Your task to perform on an android device: turn pop-ups on in chrome Image 0: 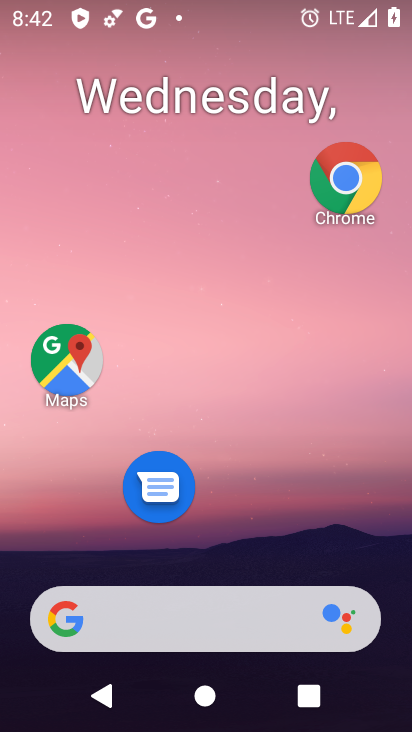
Step 0: drag from (176, 610) to (204, 98)
Your task to perform on an android device: turn pop-ups on in chrome Image 1: 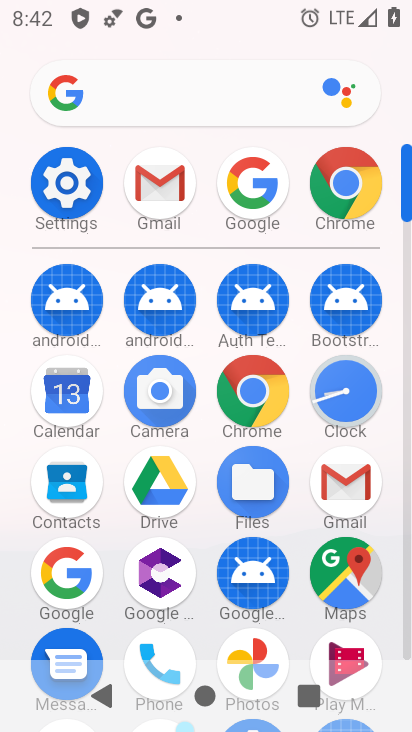
Step 1: click (325, 191)
Your task to perform on an android device: turn pop-ups on in chrome Image 2: 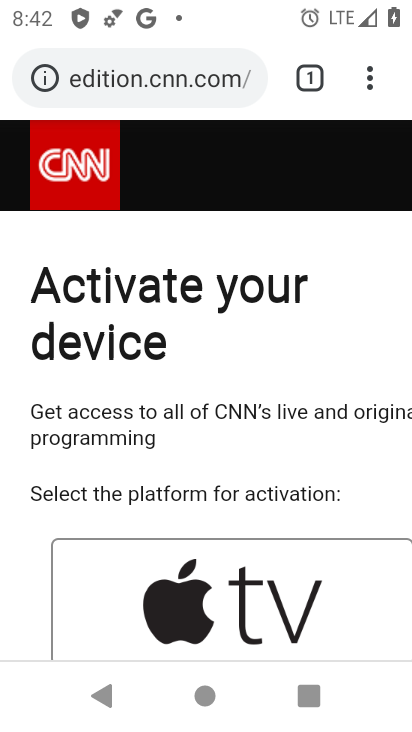
Step 2: click (369, 88)
Your task to perform on an android device: turn pop-ups on in chrome Image 3: 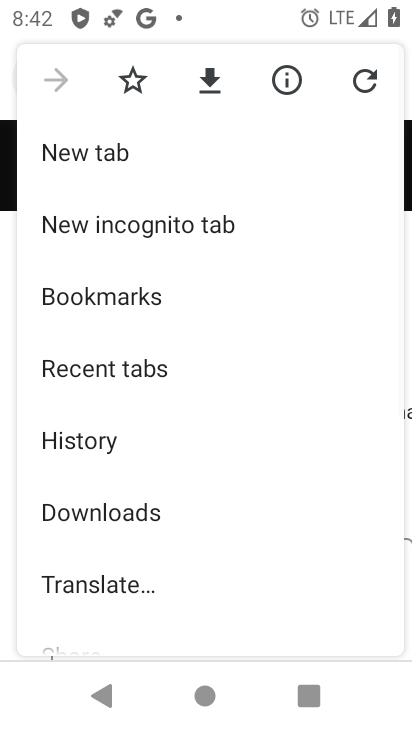
Step 3: drag from (154, 477) to (252, 125)
Your task to perform on an android device: turn pop-ups on in chrome Image 4: 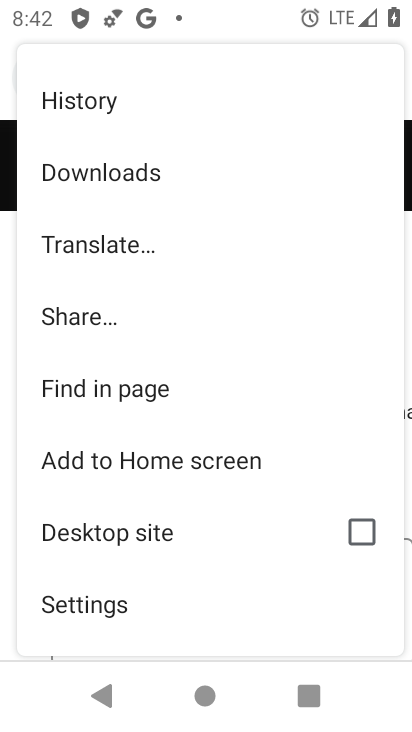
Step 4: click (98, 603)
Your task to perform on an android device: turn pop-ups on in chrome Image 5: 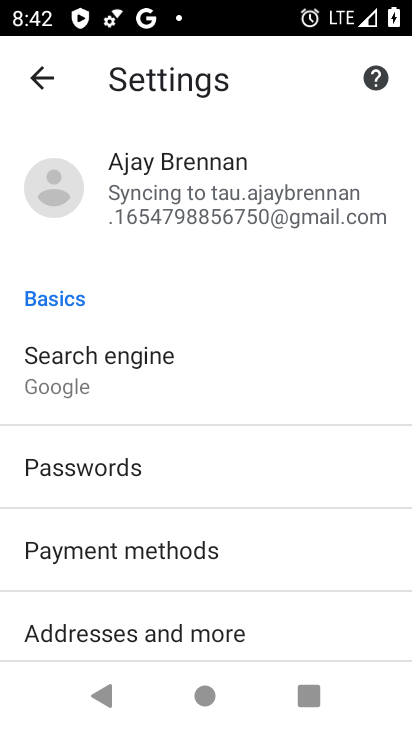
Step 5: drag from (151, 592) to (173, 448)
Your task to perform on an android device: turn pop-ups on in chrome Image 6: 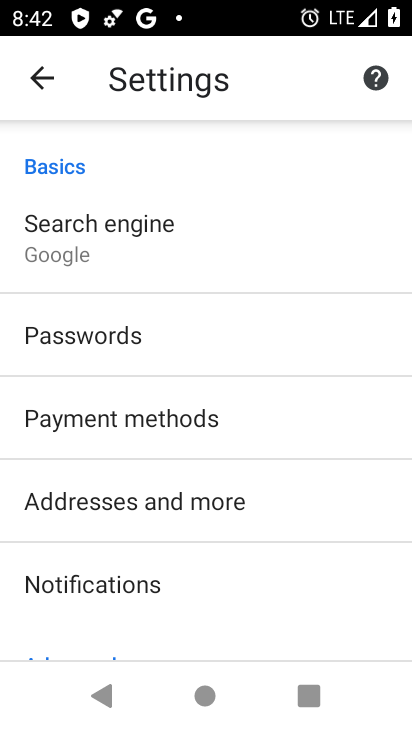
Step 6: drag from (153, 591) to (176, 457)
Your task to perform on an android device: turn pop-ups on in chrome Image 7: 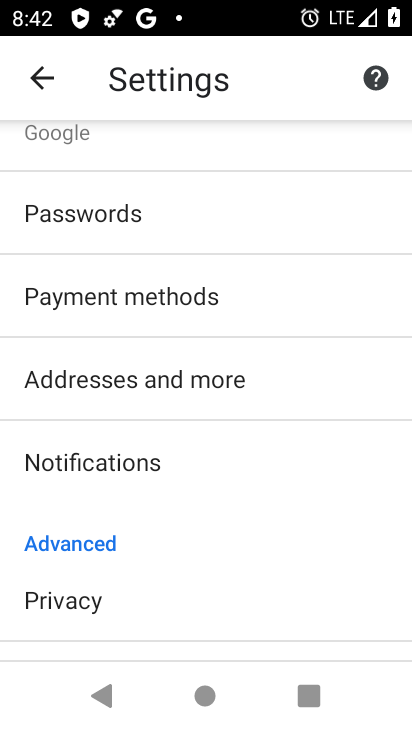
Step 7: drag from (155, 620) to (188, 374)
Your task to perform on an android device: turn pop-ups on in chrome Image 8: 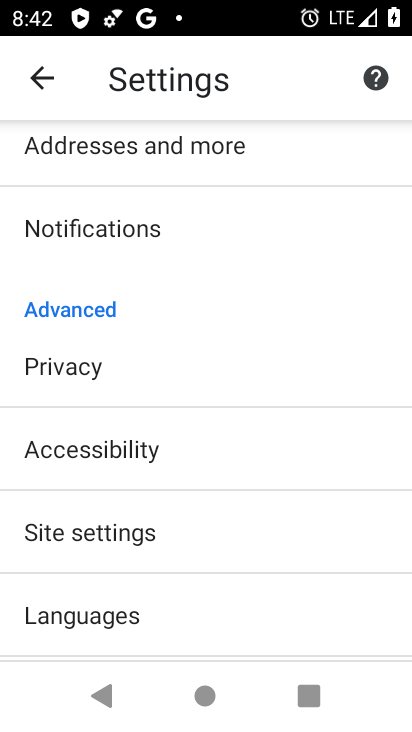
Step 8: click (98, 535)
Your task to perform on an android device: turn pop-ups on in chrome Image 9: 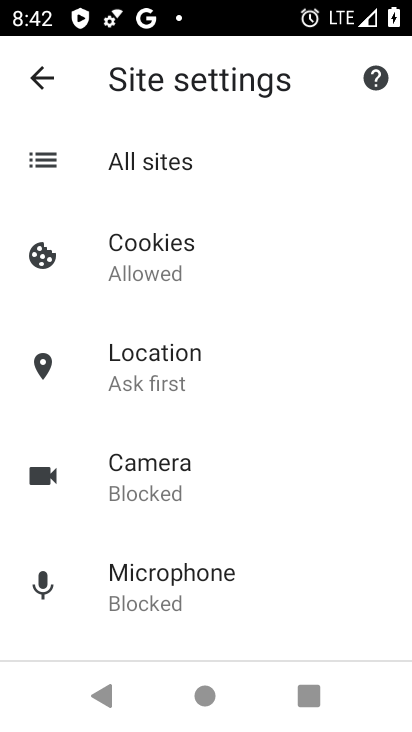
Step 9: drag from (200, 585) to (219, 458)
Your task to perform on an android device: turn pop-ups on in chrome Image 10: 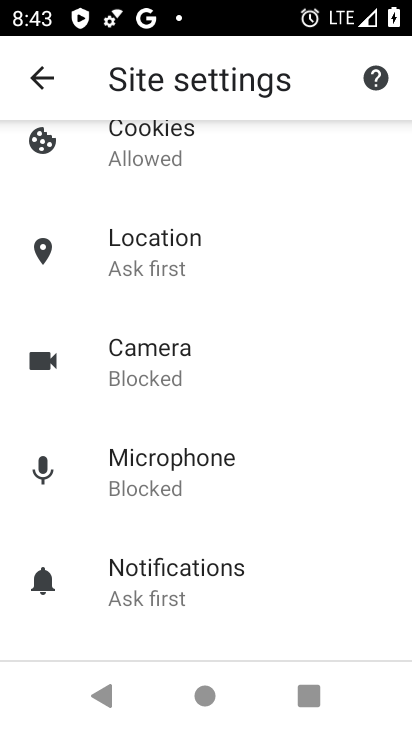
Step 10: drag from (195, 633) to (251, 381)
Your task to perform on an android device: turn pop-ups on in chrome Image 11: 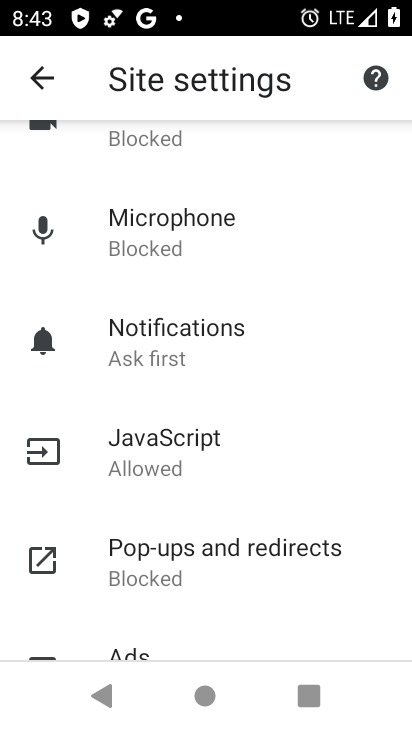
Step 11: click (205, 559)
Your task to perform on an android device: turn pop-ups on in chrome Image 12: 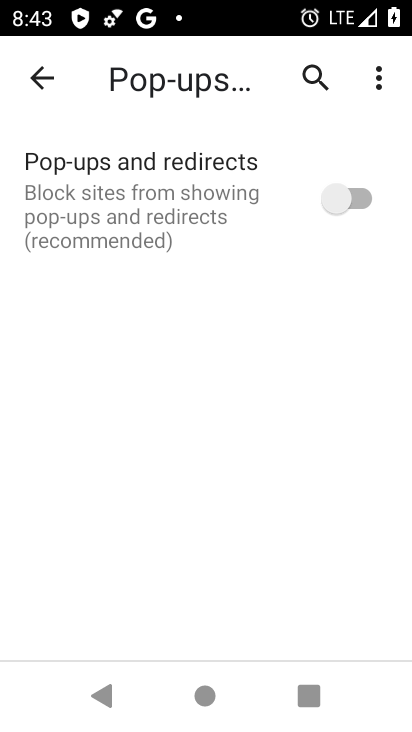
Step 12: click (366, 199)
Your task to perform on an android device: turn pop-ups on in chrome Image 13: 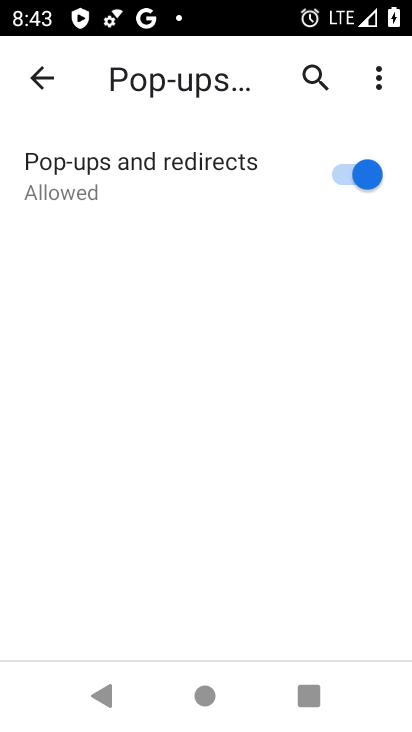
Step 13: task complete